Your task to perform on an android device: Go to calendar. Show me events next week Image 0: 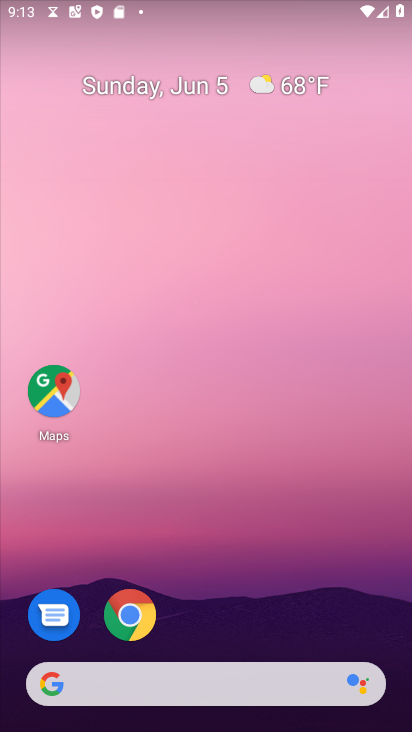
Step 0: press home button
Your task to perform on an android device: Go to calendar. Show me events next week Image 1: 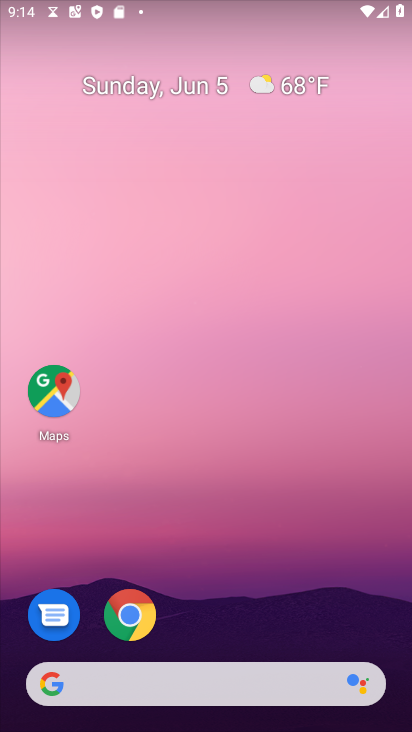
Step 1: drag from (186, 724) to (229, 244)
Your task to perform on an android device: Go to calendar. Show me events next week Image 2: 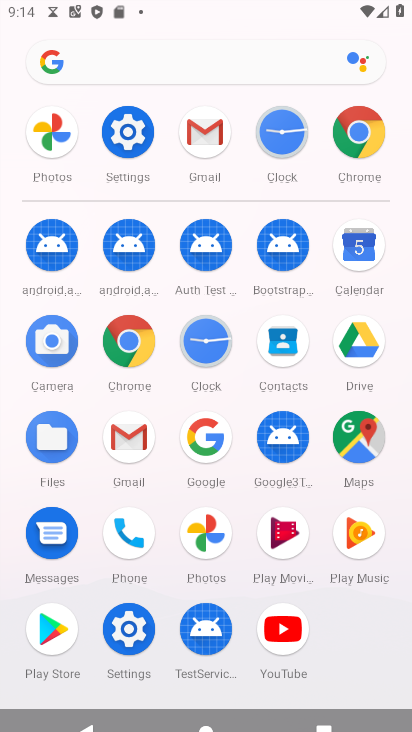
Step 2: click (372, 250)
Your task to perform on an android device: Go to calendar. Show me events next week Image 3: 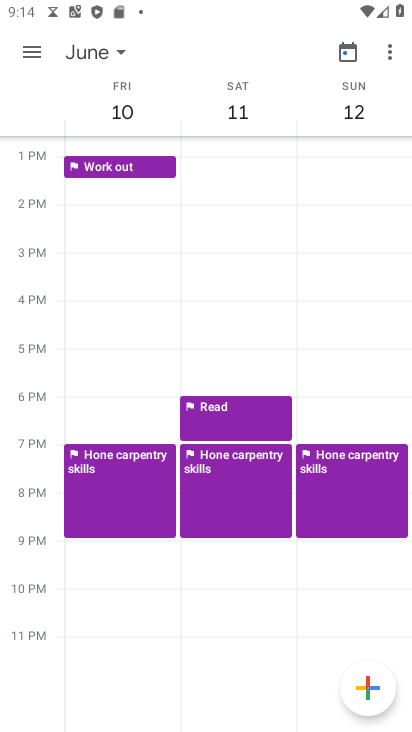
Step 3: click (38, 50)
Your task to perform on an android device: Go to calendar. Show me events next week Image 4: 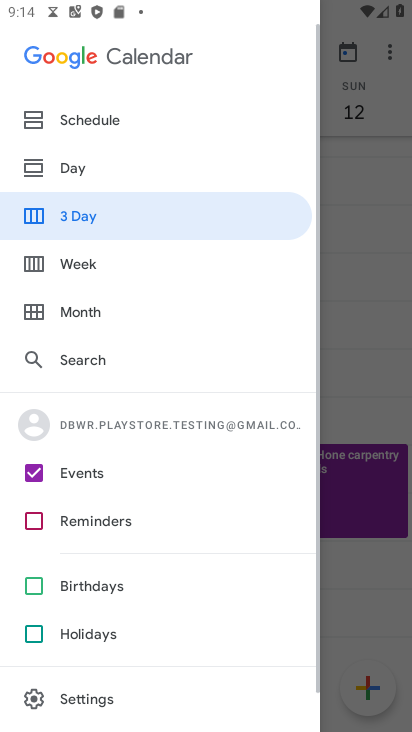
Step 4: click (54, 261)
Your task to perform on an android device: Go to calendar. Show me events next week Image 5: 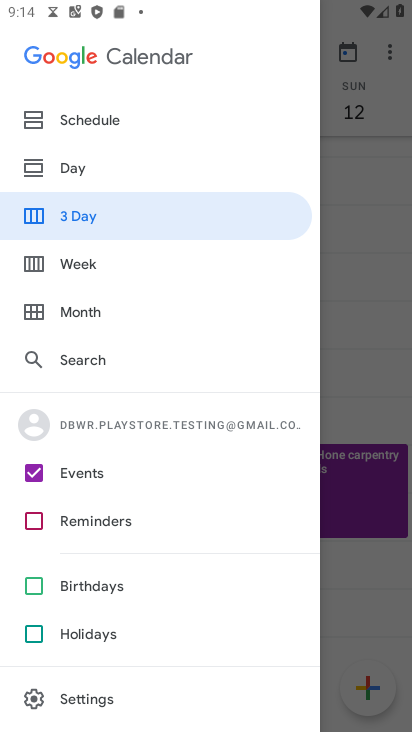
Step 5: click (208, 252)
Your task to perform on an android device: Go to calendar. Show me events next week Image 6: 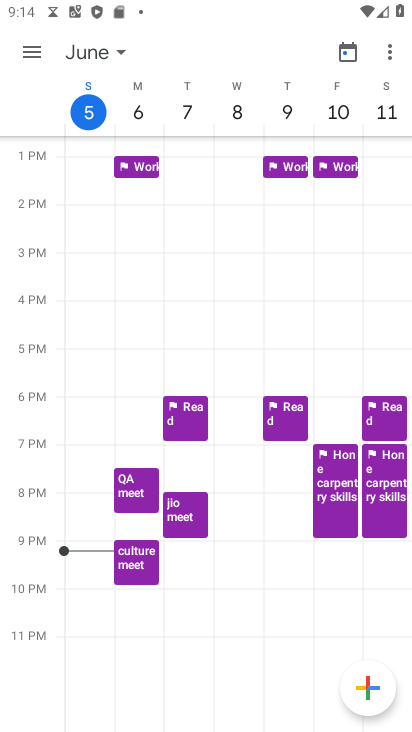
Step 6: task complete